Your task to perform on an android device: Go to location settings Image 0: 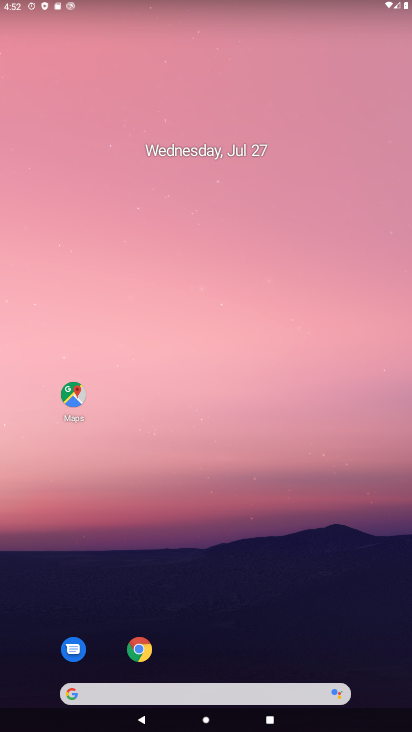
Step 0: drag from (189, 700) to (264, 224)
Your task to perform on an android device: Go to location settings Image 1: 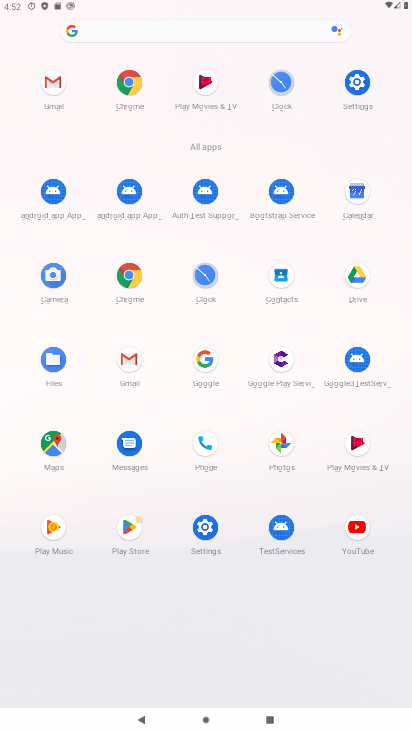
Step 1: click (355, 81)
Your task to perform on an android device: Go to location settings Image 2: 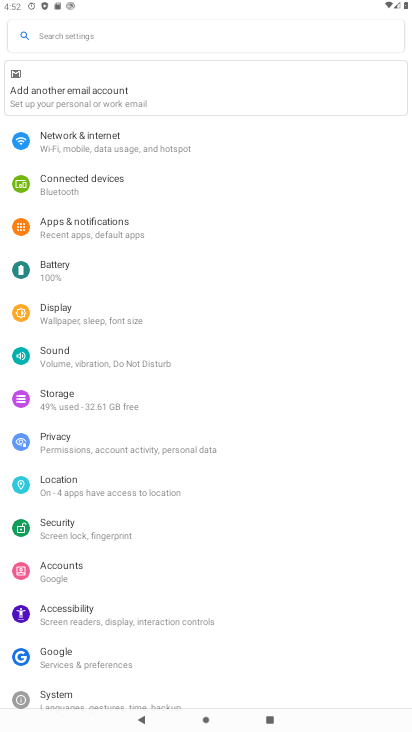
Step 2: click (75, 487)
Your task to perform on an android device: Go to location settings Image 3: 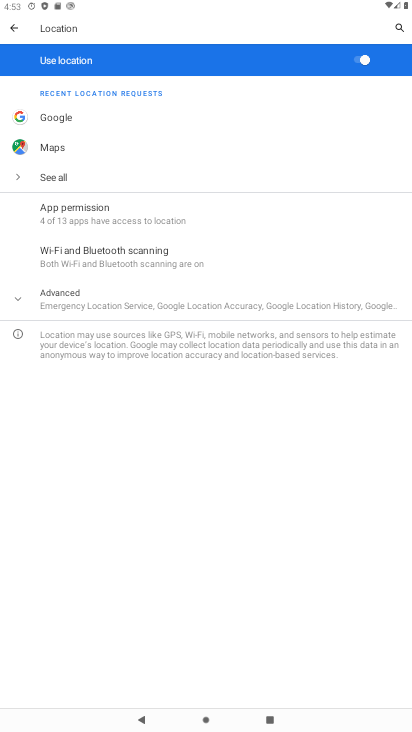
Step 3: task complete